Your task to perform on an android device: Show me productivity apps on the Play Store Image 0: 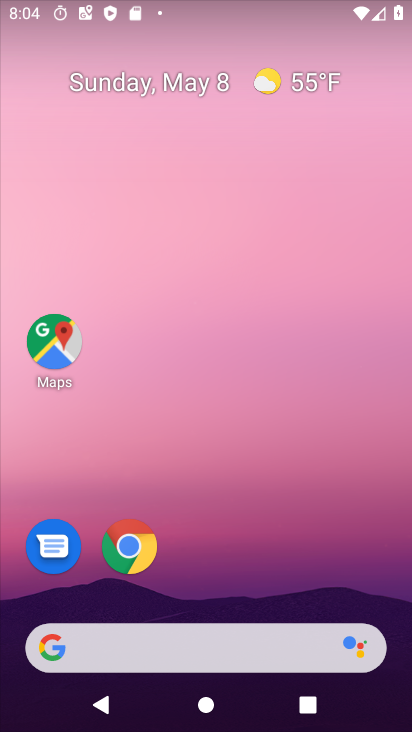
Step 0: drag from (245, 520) to (316, 15)
Your task to perform on an android device: Show me productivity apps on the Play Store Image 1: 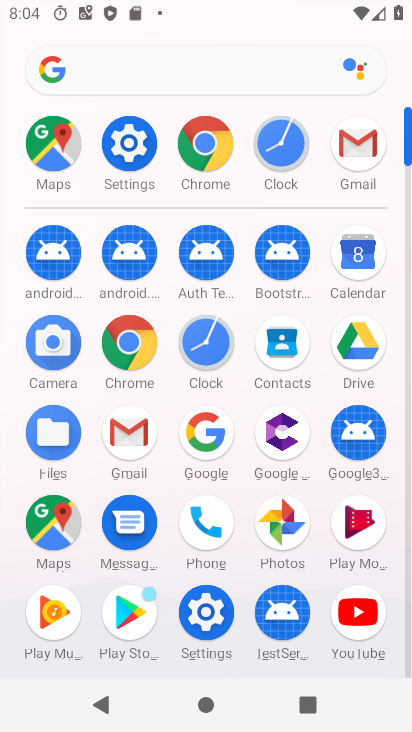
Step 1: click (129, 592)
Your task to perform on an android device: Show me productivity apps on the Play Store Image 2: 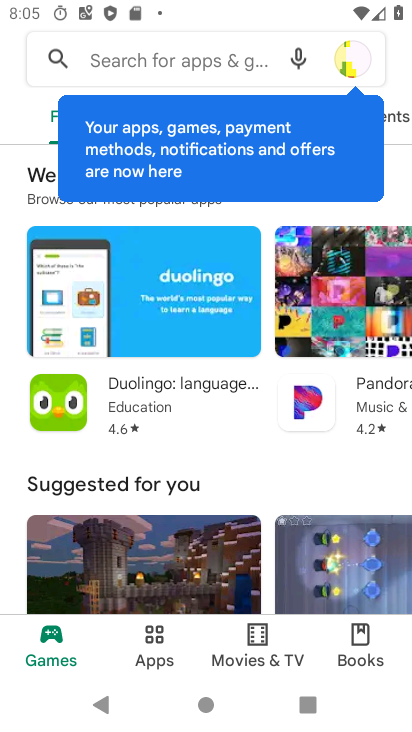
Step 2: click (141, 635)
Your task to perform on an android device: Show me productivity apps on the Play Store Image 3: 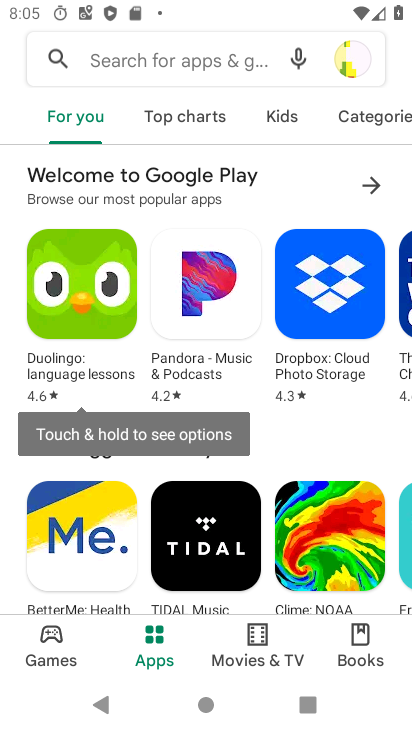
Step 3: click (361, 111)
Your task to perform on an android device: Show me productivity apps on the Play Store Image 4: 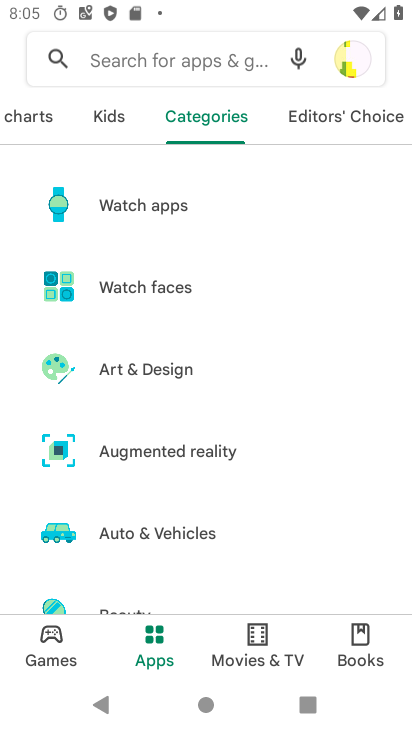
Step 4: click (216, 53)
Your task to perform on an android device: Show me productivity apps on the Play Store Image 5: 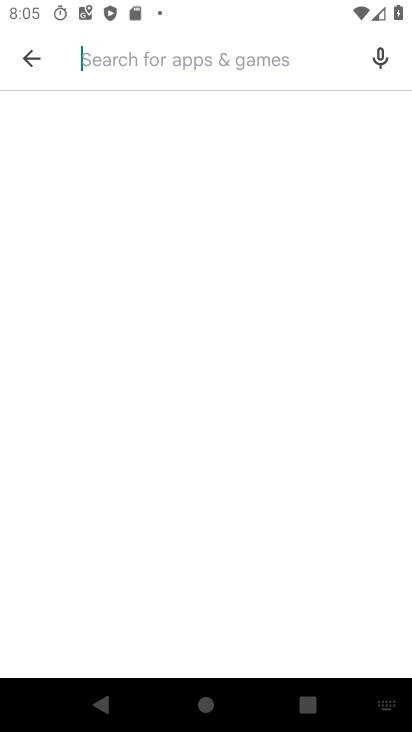
Step 5: click (179, 165)
Your task to perform on an android device: Show me productivity apps on the Play Store Image 6: 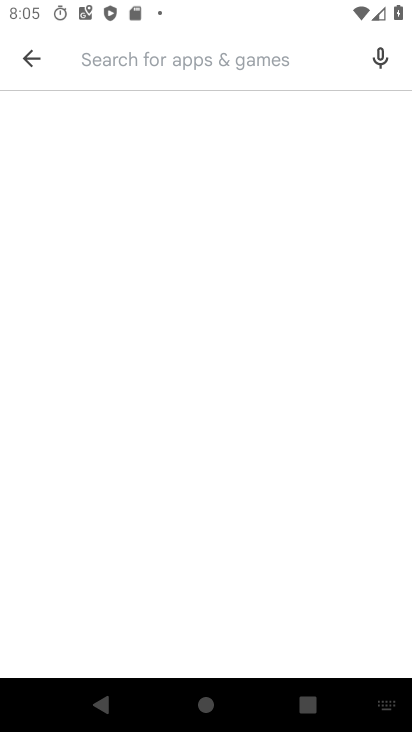
Step 6: click (30, 57)
Your task to perform on an android device: Show me productivity apps on the Play Store Image 7: 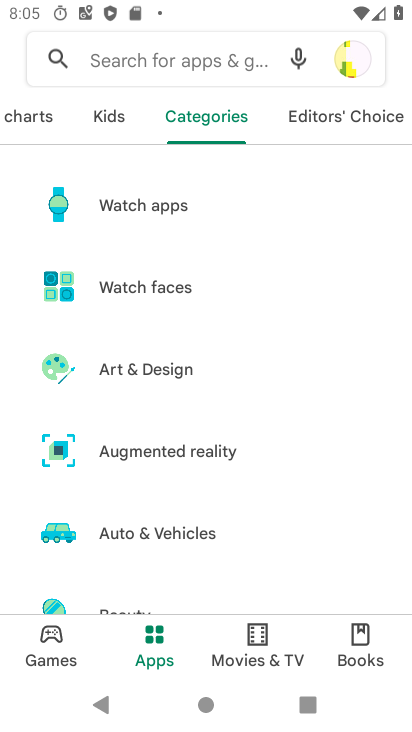
Step 7: drag from (147, 502) to (170, 259)
Your task to perform on an android device: Show me productivity apps on the Play Store Image 8: 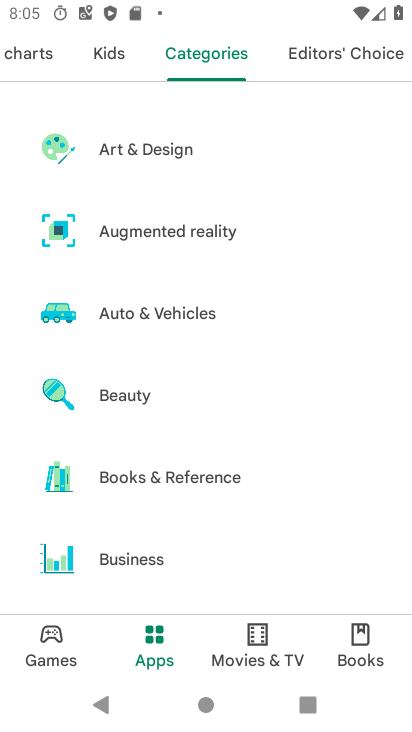
Step 8: drag from (168, 494) to (192, 121)
Your task to perform on an android device: Show me productivity apps on the Play Store Image 9: 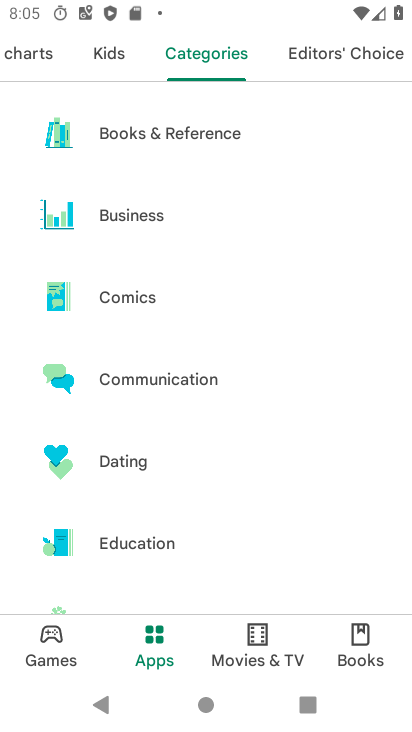
Step 9: drag from (187, 583) to (206, 151)
Your task to perform on an android device: Show me productivity apps on the Play Store Image 10: 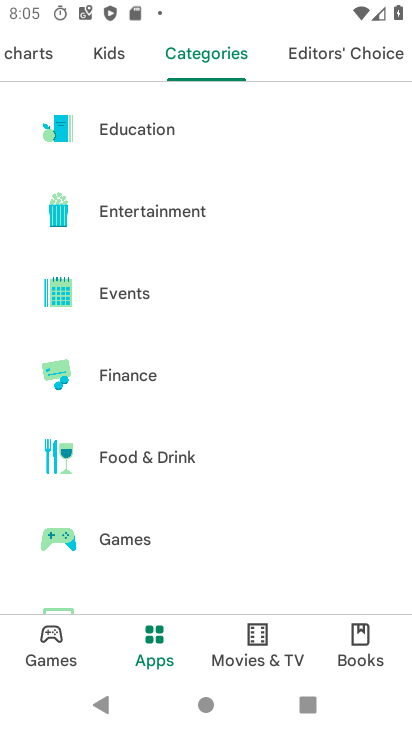
Step 10: drag from (191, 569) to (191, 157)
Your task to perform on an android device: Show me productivity apps on the Play Store Image 11: 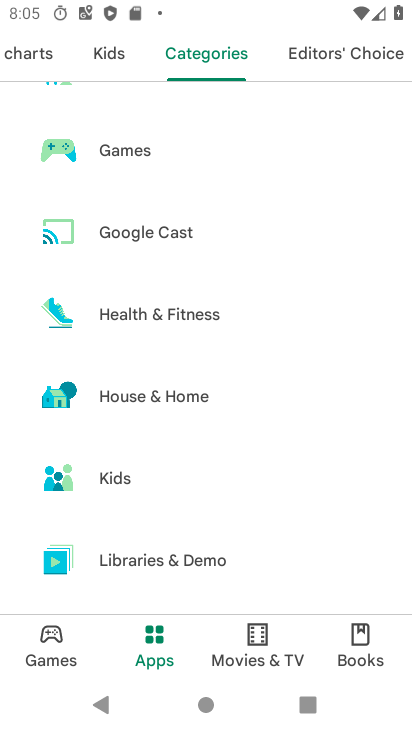
Step 11: drag from (178, 565) to (206, 204)
Your task to perform on an android device: Show me productivity apps on the Play Store Image 12: 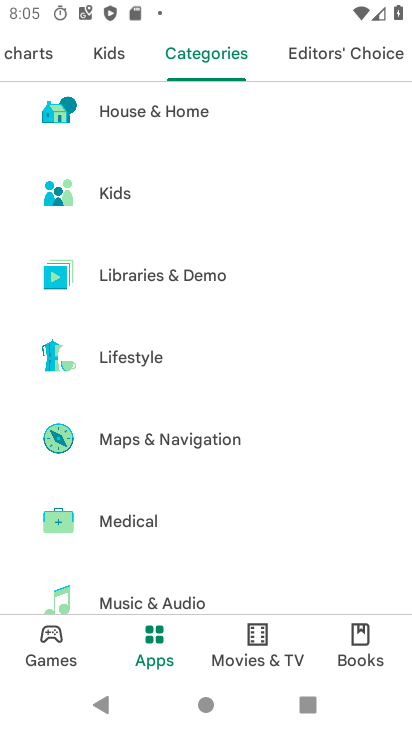
Step 12: drag from (181, 573) to (220, 174)
Your task to perform on an android device: Show me productivity apps on the Play Store Image 13: 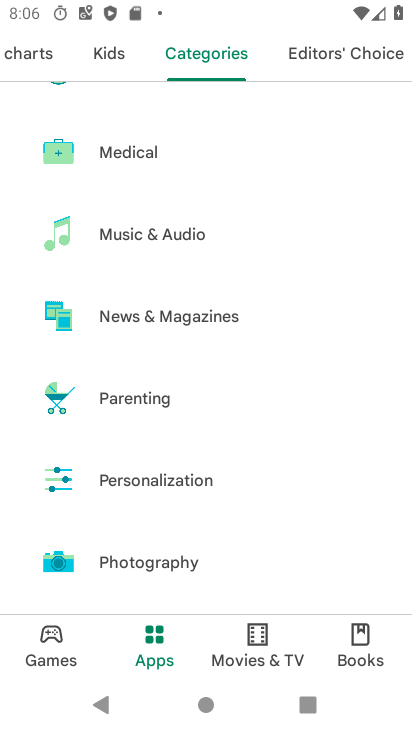
Step 13: drag from (216, 524) to (244, 160)
Your task to perform on an android device: Show me productivity apps on the Play Store Image 14: 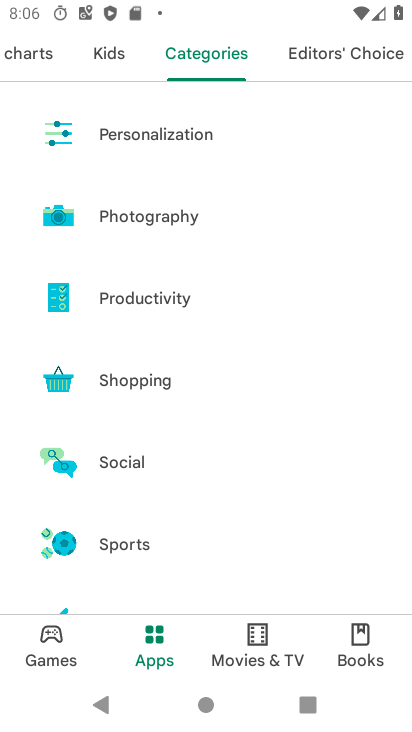
Step 14: click (179, 296)
Your task to perform on an android device: Show me productivity apps on the Play Store Image 15: 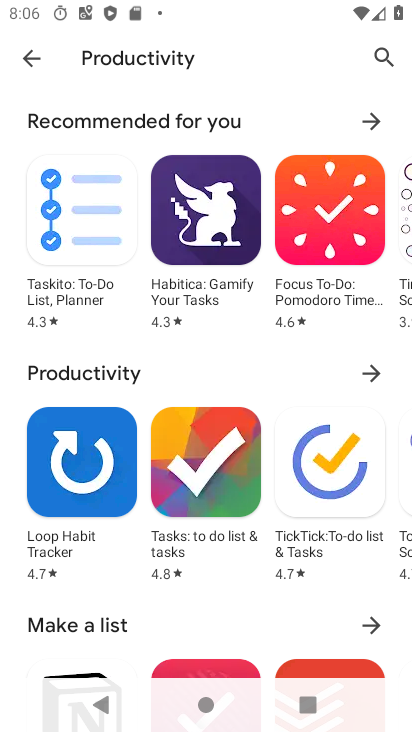
Step 15: task complete